Your task to perform on an android device: add a label to a message in the gmail app Image 0: 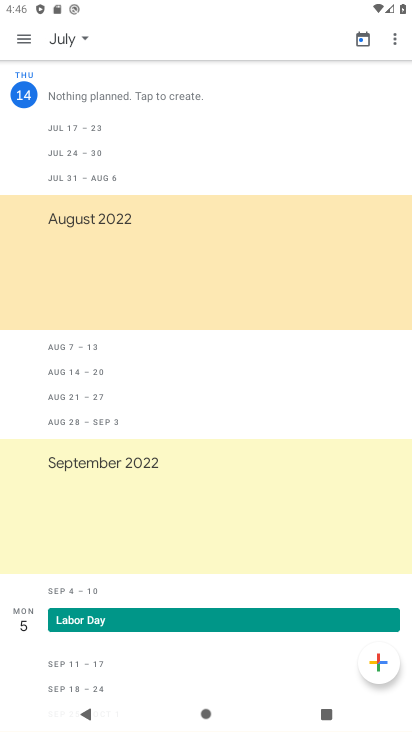
Step 0: click (21, 40)
Your task to perform on an android device: add a label to a message in the gmail app Image 1: 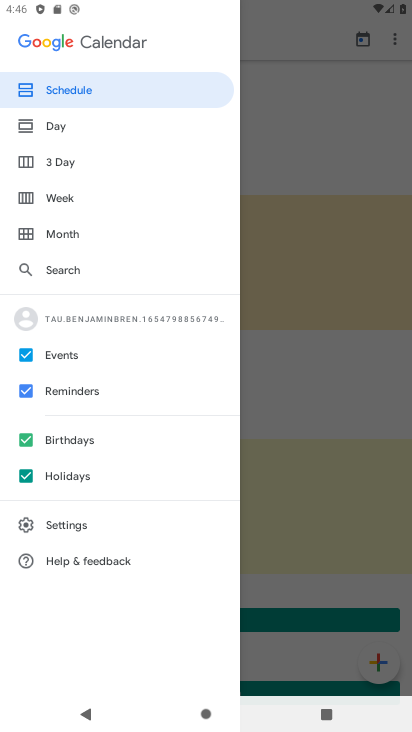
Step 1: press home button
Your task to perform on an android device: add a label to a message in the gmail app Image 2: 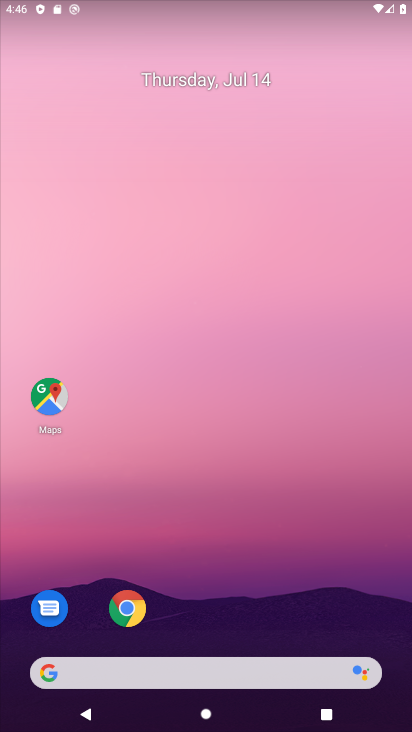
Step 2: drag from (275, 624) to (212, 109)
Your task to perform on an android device: add a label to a message in the gmail app Image 3: 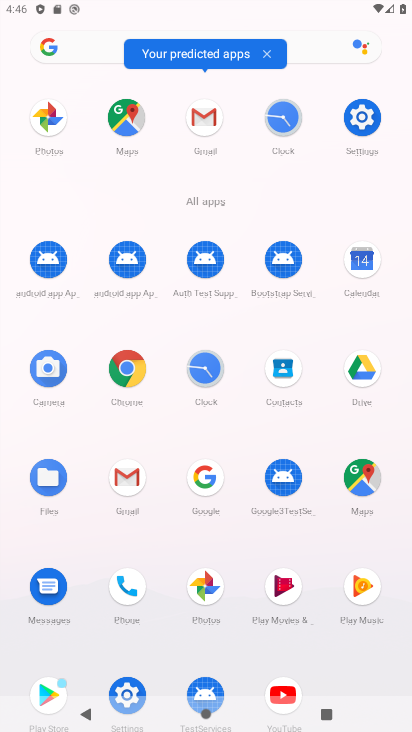
Step 3: click (206, 127)
Your task to perform on an android device: add a label to a message in the gmail app Image 4: 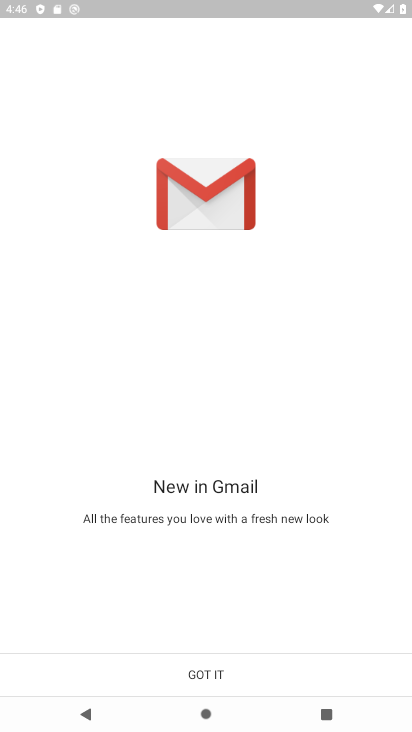
Step 4: click (213, 684)
Your task to perform on an android device: add a label to a message in the gmail app Image 5: 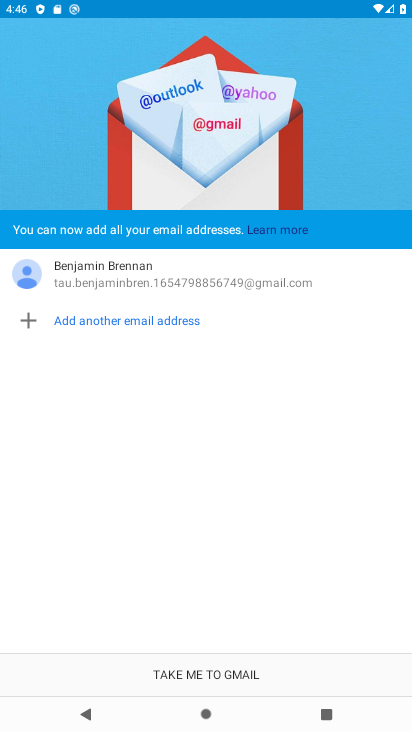
Step 5: click (213, 682)
Your task to perform on an android device: add a label to a message in the gmail app Image 6: 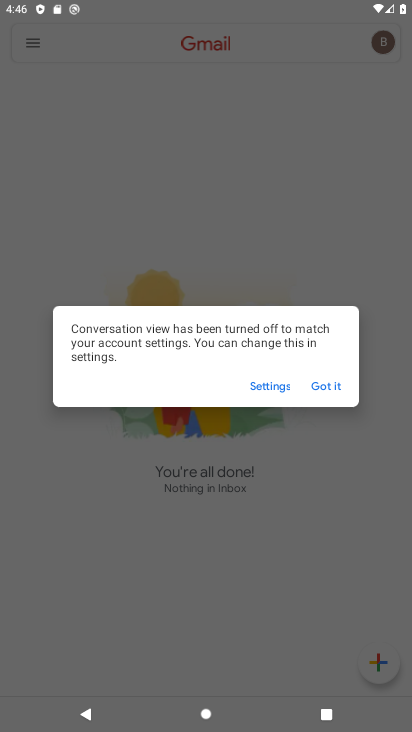
Step 6: click (329, 379)
Your task to perform on an android device: add a label to a message in the gmail app Image 7: 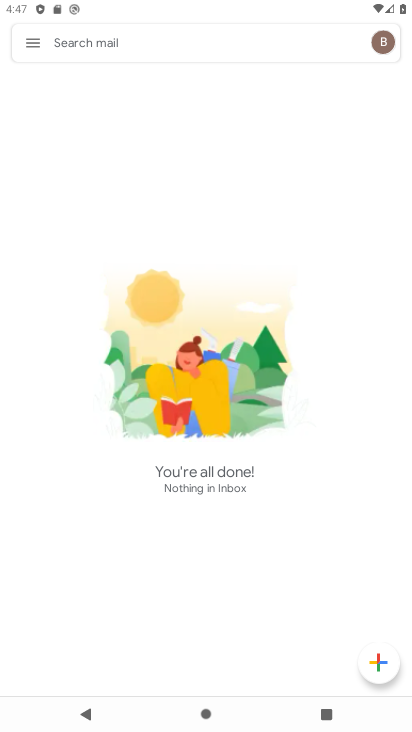
Step 7: task complete